Your task to perform on an android device: Open Maps and search for coffee Image 0: 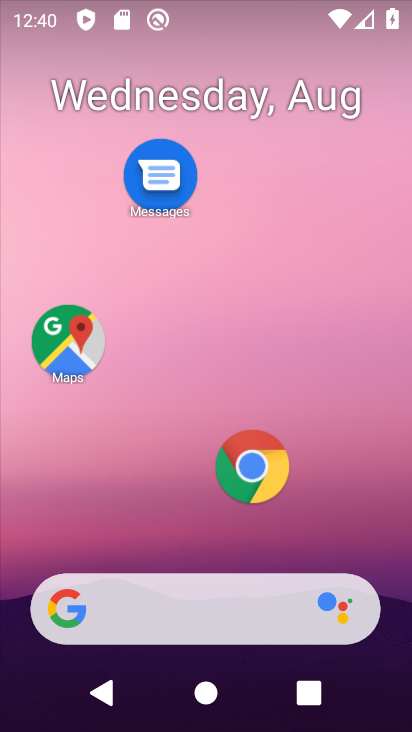
Step 0: click (57, 338)
Your task to perform on an android device: Open Maps and search for coffee Image 1: 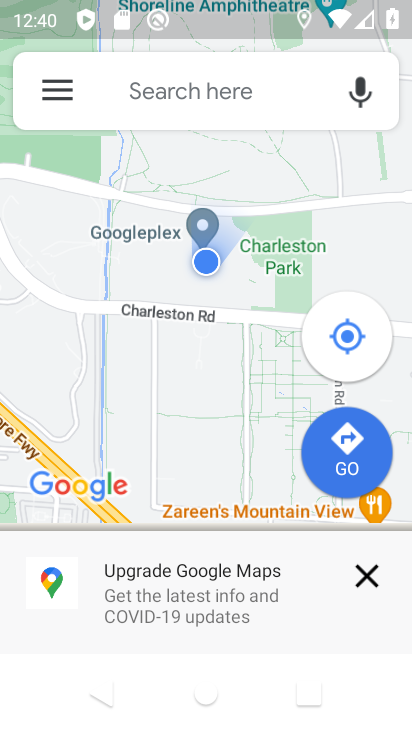
Step 1: click (369, 581)
Your task to perform on an android device: Open Maps and search for coffee Image 2: 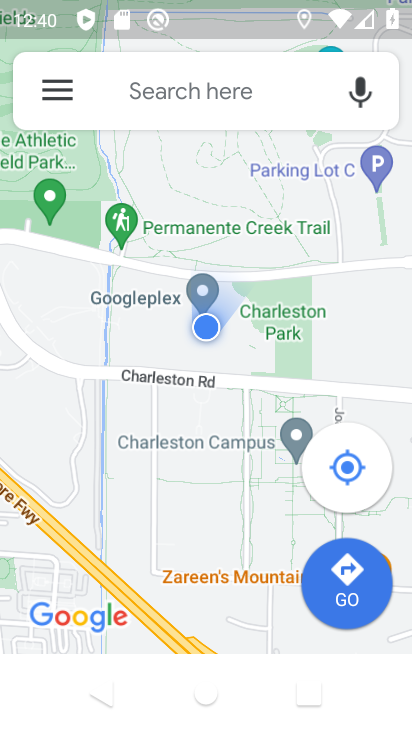
Step 2: click (218, 89)
Your task to perform on an android device: Open Maps and search for coffee Image 3: 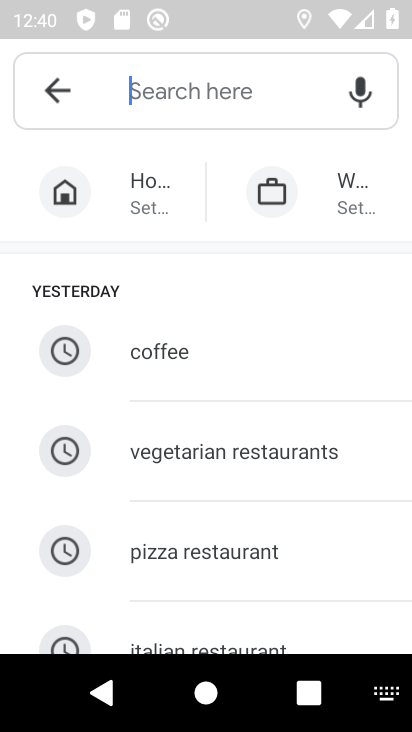
Step 3: click (160, 359)
Your task to perform on an android device: Open Maps and search for coffee Image 4: 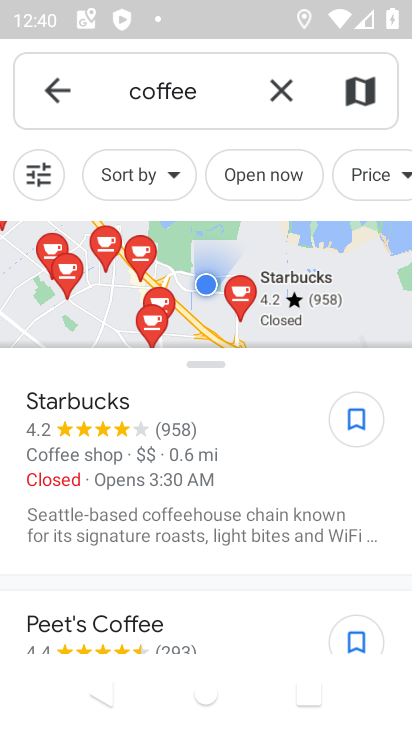
Step 4: task complete